Your task to perform on an android device: turn off data saver in the chrome app Image 0: 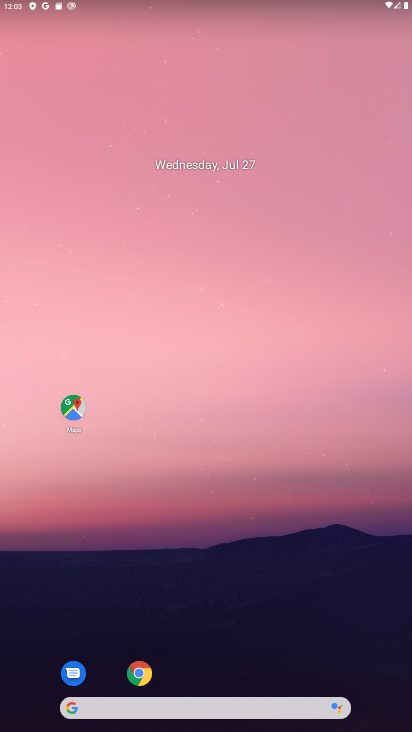
Step 0: click (139, 681)
Your task to perform on an android device: turn off data saver in the chrome app Image 1: 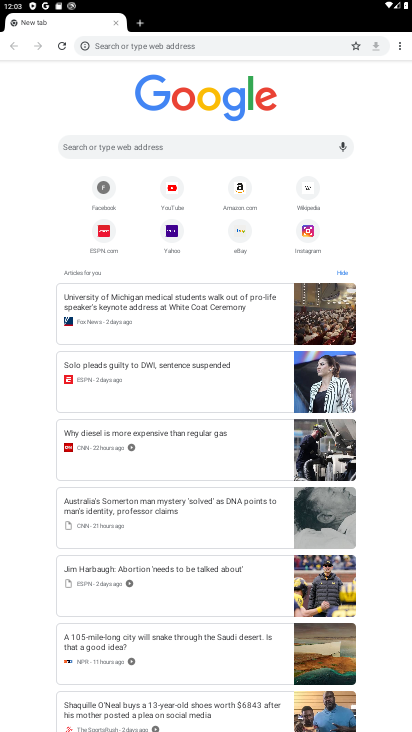
Step 1: drag from (402, 47) to (321, 215)
Your task to perform on an android device: turn off data saver in the chrome app Image 2: 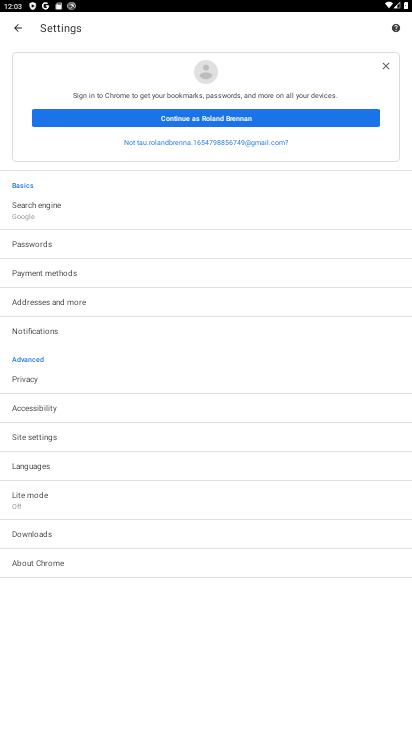
Step 2: click (57, 495)
Your task to perform on an android device: turn off data saver in the chrome app Image 3: 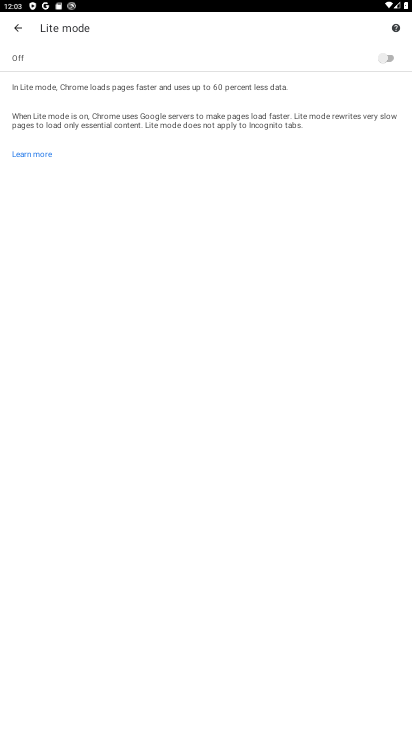
Step 3: task complete